Your task to perform on an android device: check android version Image 0: 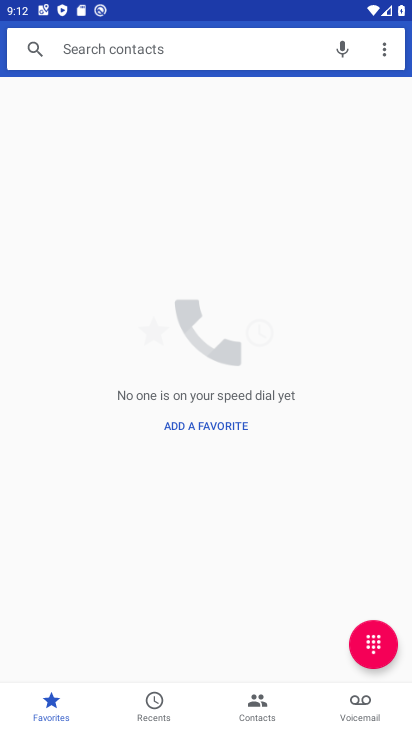
Step 0: press home button
Your task to perform on an android device: check android version Image 1: 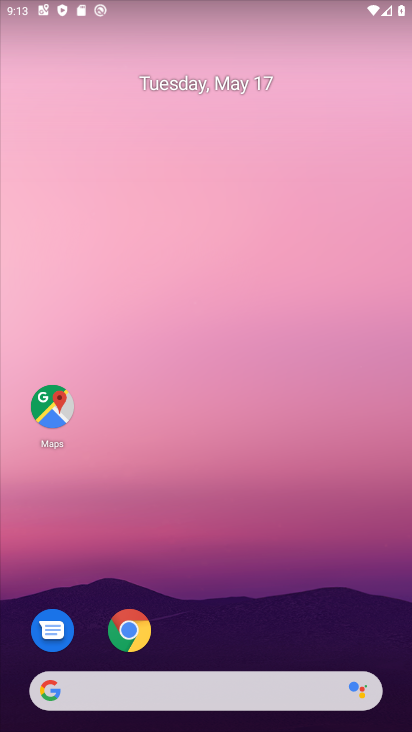
Step 1: drag from (260, 627) to (227, 109)
Your task to perform on an android device: check android version Image 2: 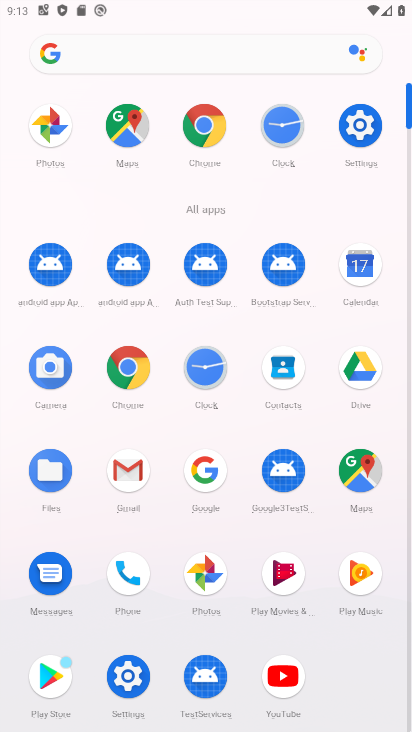
Step 2: click (358, 140)
Your task to perform on an android device: check android version Image 3: 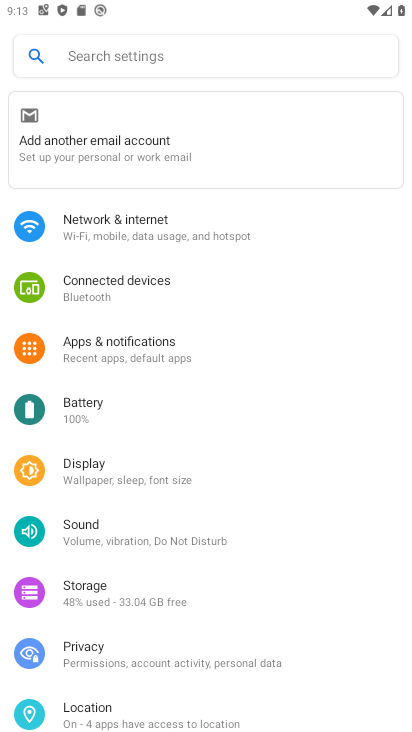
Step 3: drag from (294, 661) to (283, 96)
Your task to perform on an android device: check android version Image 4: 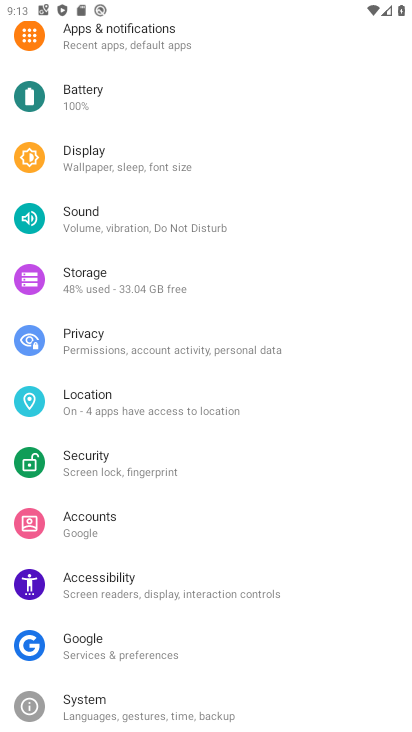
Step 4: drag from (248, 555) to (266, 110)
Your task to perform on an android device: check android version Image 5: 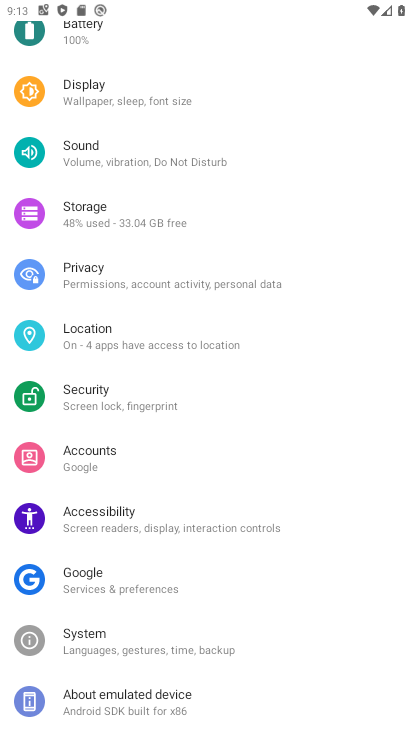
Step 5: click (165, 706)
Your task to perform on an android device: check android version Image 6: 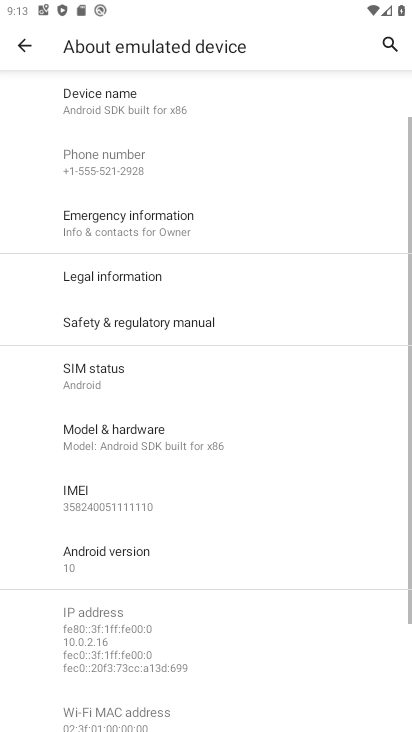
Step 6: click (142, 552)
Your task to perform on an android device: check android version Image 7: 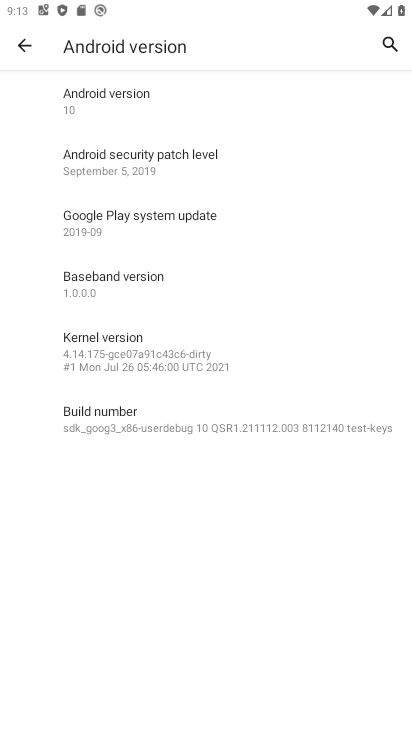
Step 7: task complete